Your task to perform on an android device: Open calendar and show me the first week of next month Image 0: 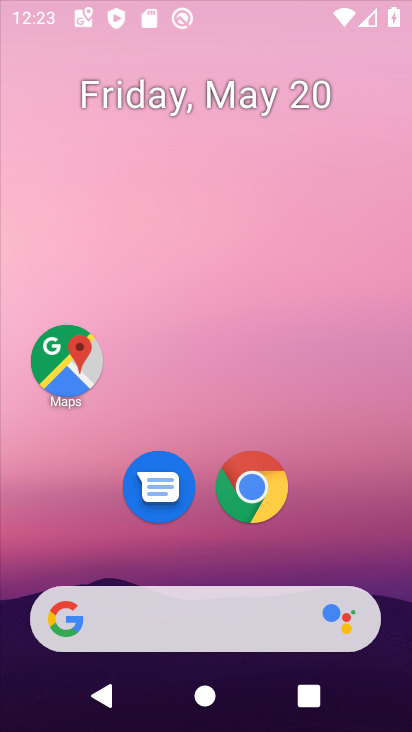
Step 0: drag from (215, 528) to (276, 99)
Your task to perform on an android device: Open calendar and show me the first week of next month Image 1: 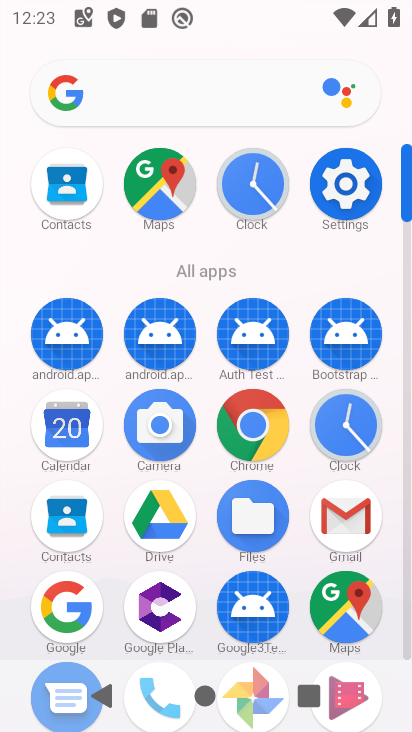
Step 1: click (72, 455)
Your task to perform on an android device: Open calendar and show me the first week of next month Image 2: 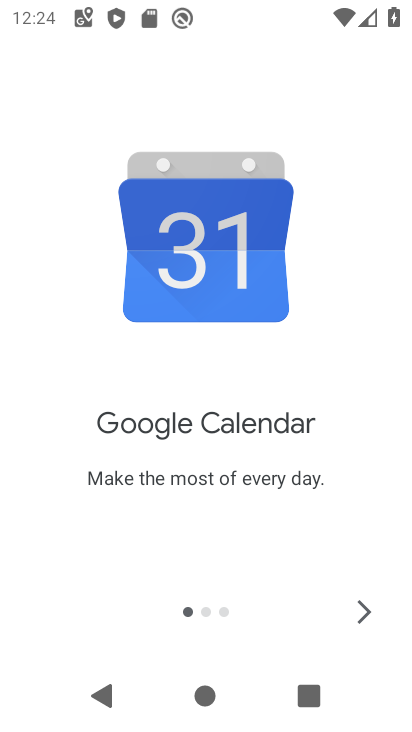
Step 2: click (368, 604)
Your task to perform on an android device: Open calendar and show me the first week of next month Image 3: 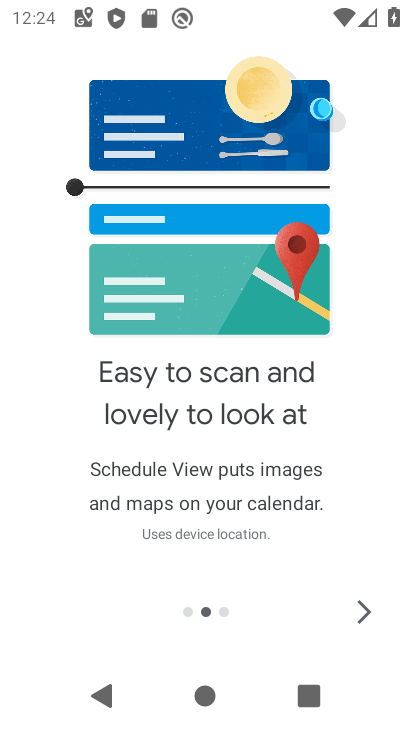
Step 3: click (368, 604)
Your task to perform on an android device: Open calendar and show me the first week of next month Image 4: 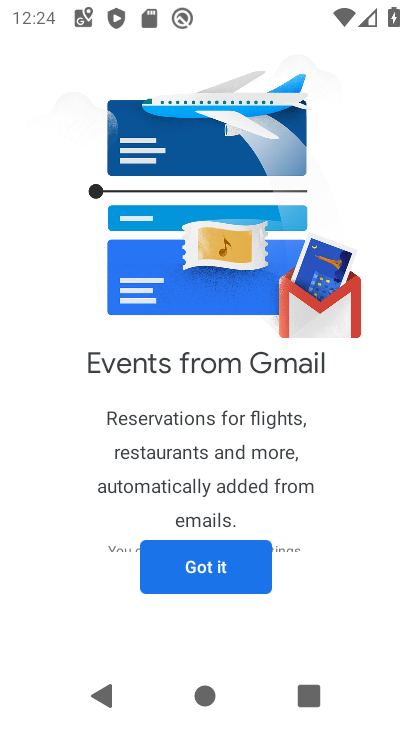
Step 4: click (178, 545)
Your task to perform on an android device: Open calendar and show me the first week of next month Image 5: 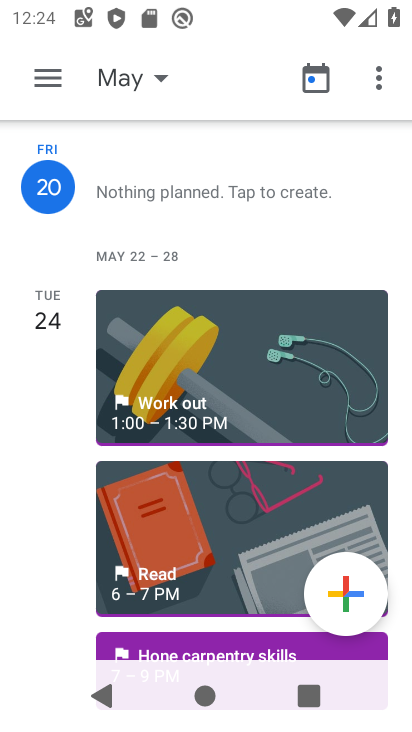
Step 5: click (151, 78)
Your task to perform on an android device: Open calendar and show me the first week of next month Image 6: 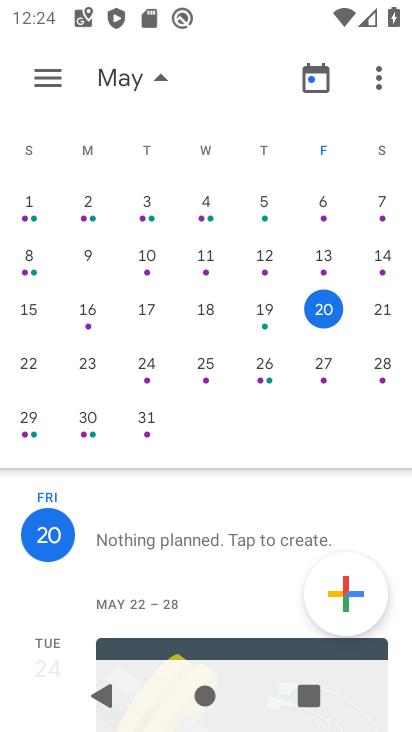
Step 6: drag from (382, 295) to (7, 274)
Your task to perform on an android device: Open calendar and show me the first week of next month Image 7: 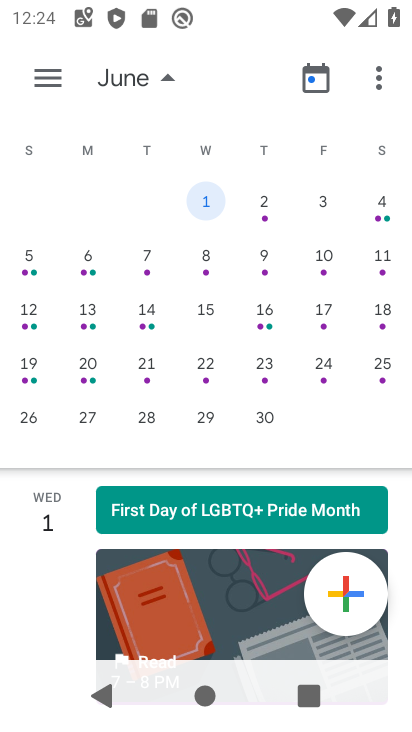
Step 7: click (209, 201)
Your task to perform on an android device: Open calendar and show me the first week of next month Image 8: 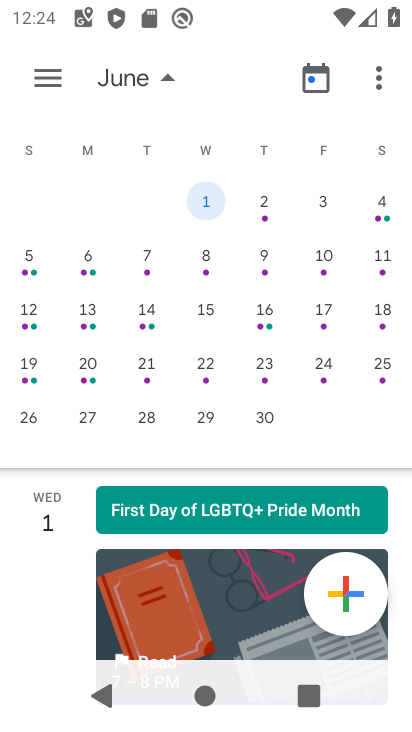
Step 8: task complete